Your task to perform on an android device: show emergency info Image 0: 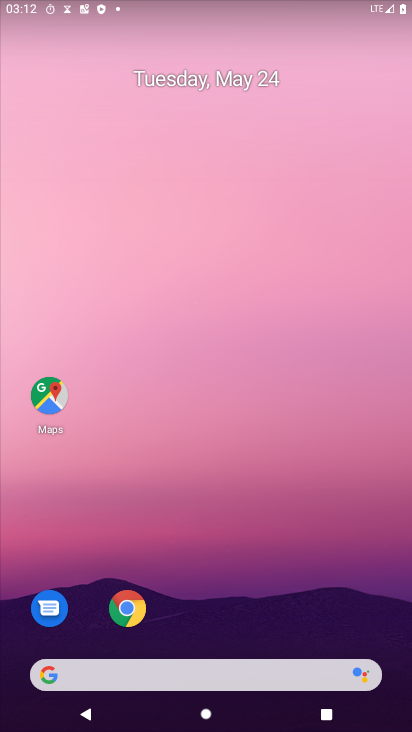
Step 0: drag from (244, 633) to (217, 66)
Your task to perform on an android device: show emergency info Image 1: 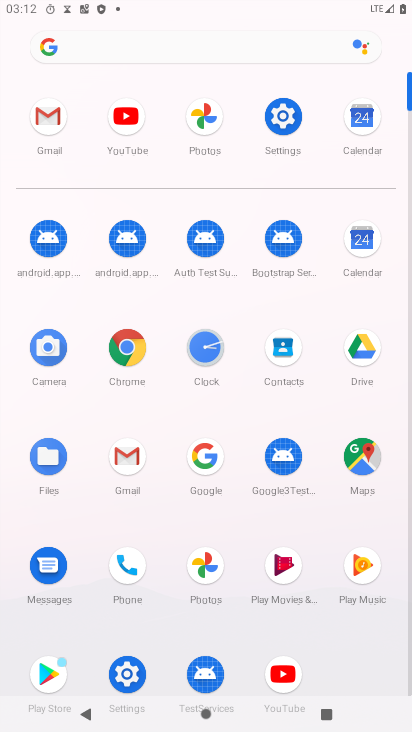
Step 1: click (281, 102)
Your task to perform on an android device: show emergency info Image 2: 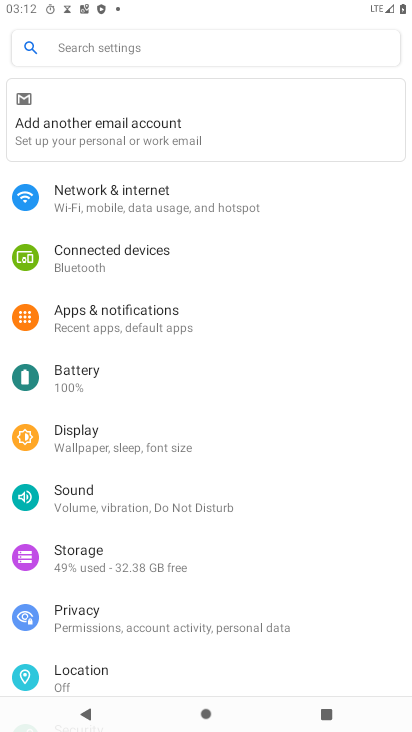
Step 2: drag from (214, 664) to (184, 203)
Your task to perform on an android device: show emergency info Image 3: 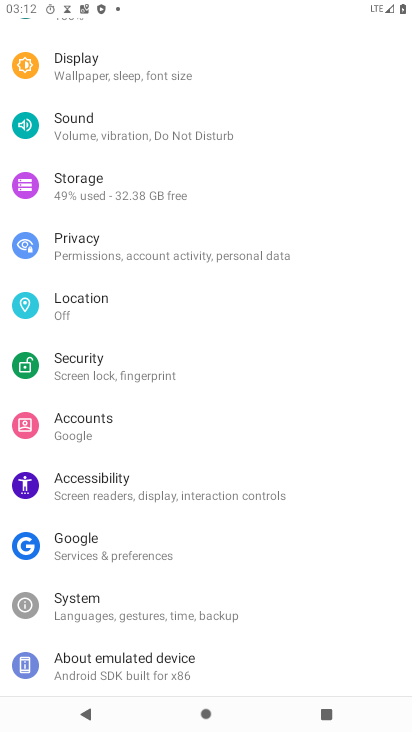
Step 3: click (139, 655)
Your task to perform on an android device: show emergency info Image 4: 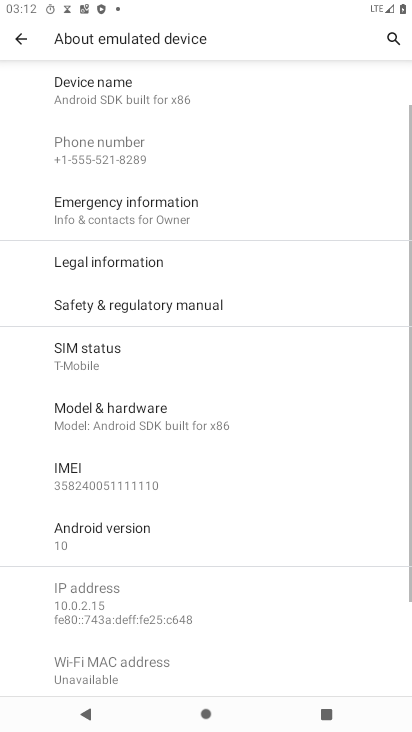
Step 4: click (189, 220)
Your task to perform on an android device: show emergency info Image 5: 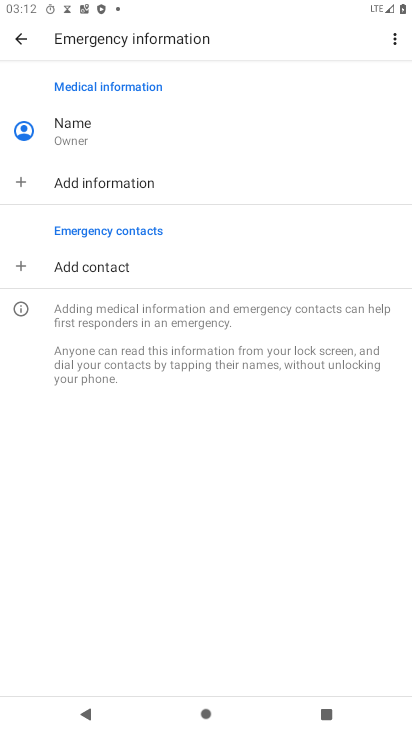
Step 5: task complete